Your task to perform on an android device: remove spam from my inbox in the gmail app Image 0: 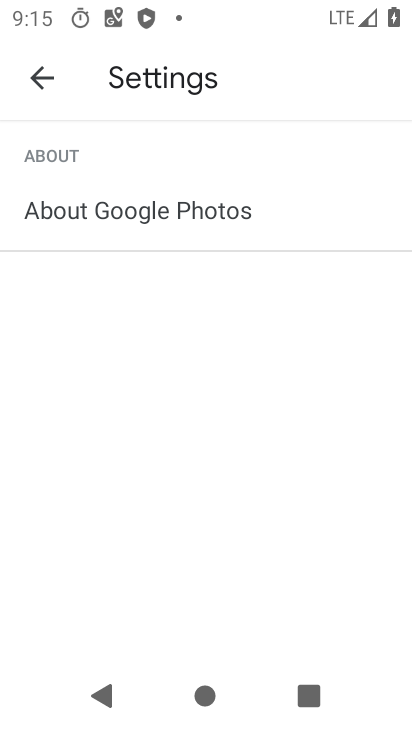
Step 0: click (46, 103)
Your task to perform on an android device: remove spam from my inbox in the gmail app Image 1: 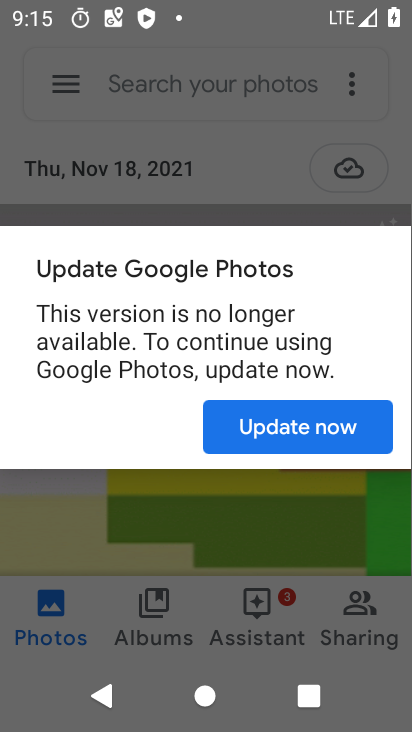
Step 1: press back button
Your task to perform on an android device: remove spam from my inbox in the gmail app Image 2: 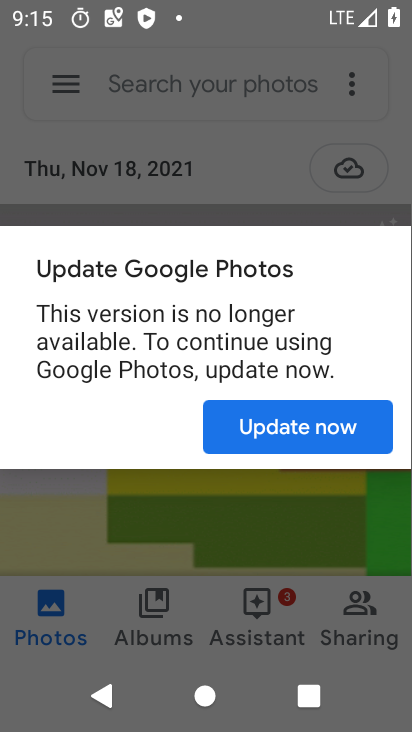
Step 2: press home button
Your task to perform on an android device: remove spam from my inbox in the gmail app Image 3: 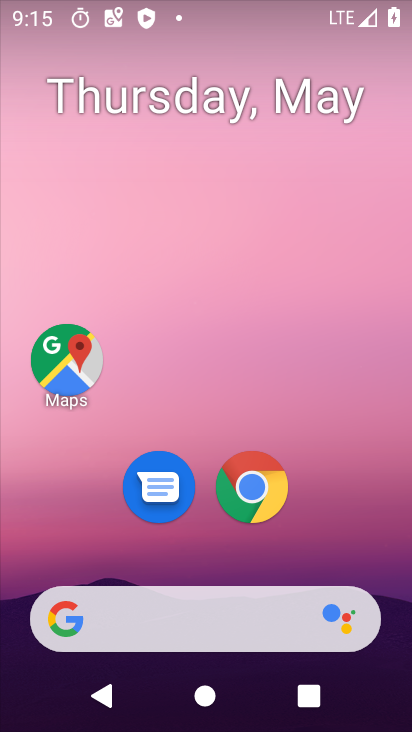
Step 3: drag from (251, 603) to (251, 148)
Your task to perform on an android device: remove spam from my inbox in the gmail app Image 4: 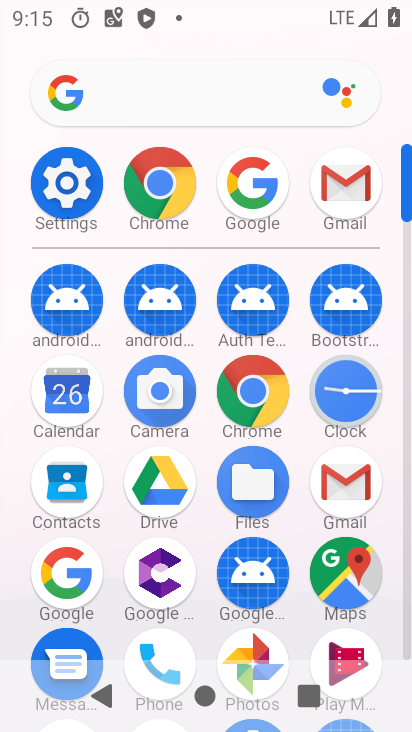
Step 4: click (340, 499)
Your task to perform on an android device: remove spam from my inbox in the gmail app Image 5: 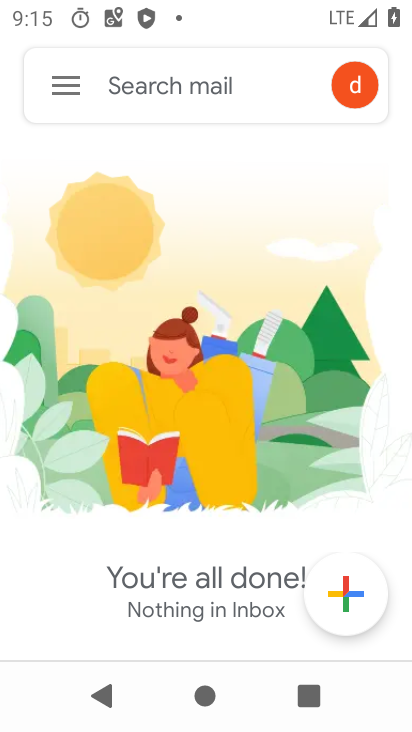
Step 5: click (70, 99)
Your task to perform on an android device: remove spam from my inbox in the gmail app Image 6: 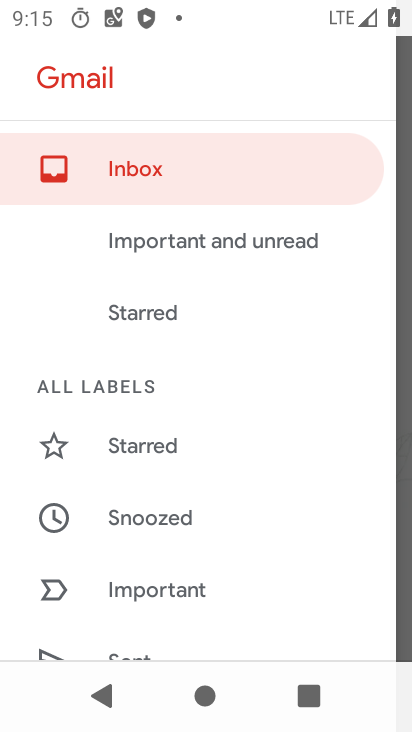
Step 6: drag from (161, 569) to (218, 220)
Your task to perform on an android device: remove spam from my inbox in the gmail app Image 7: 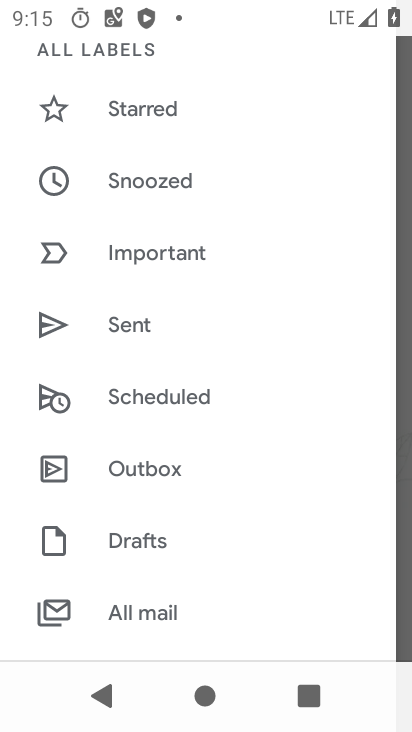
Step 7: drag from (139, 522) to (156, 320)
Your task to perform on an android device: remove spam from my inbox in the gmail app Image 8: 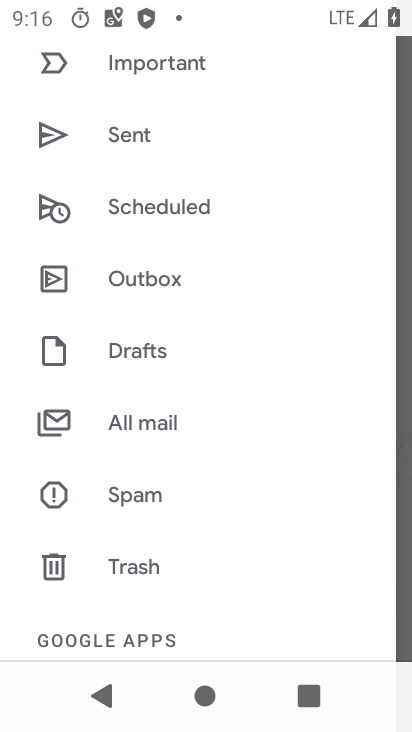
Step 8: click (154, 503)
Your task to perform on an android device: remove spam from my inbox in the gmail app Image 9: 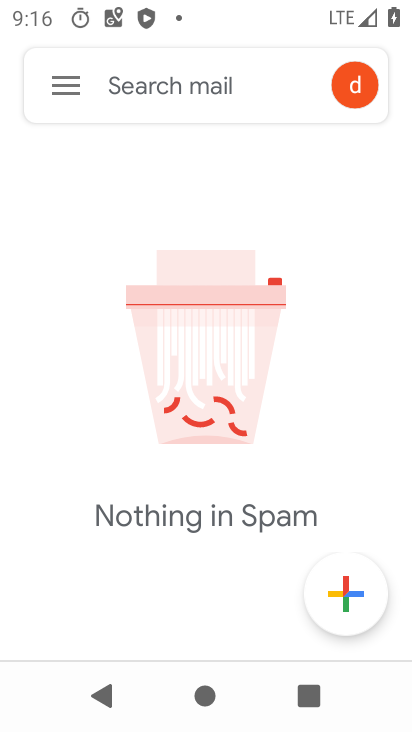
Step 9: task complete